Your task to perform on an android device: turn off picture-in-picture Image 0: 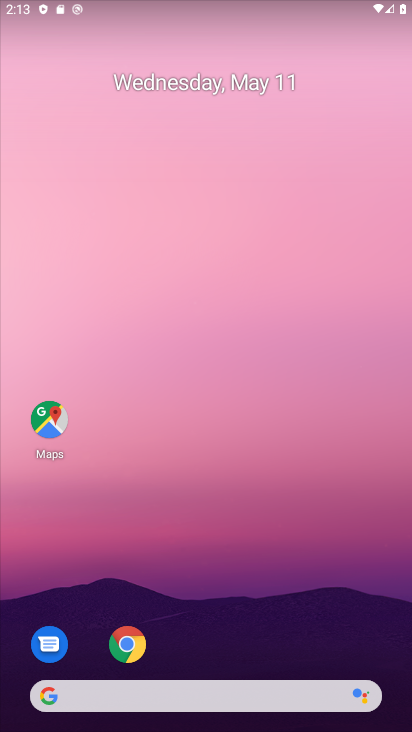
Step 0: click (126, 640)
Your task to perform on an android device: turn off picture-in-picture Image 1: 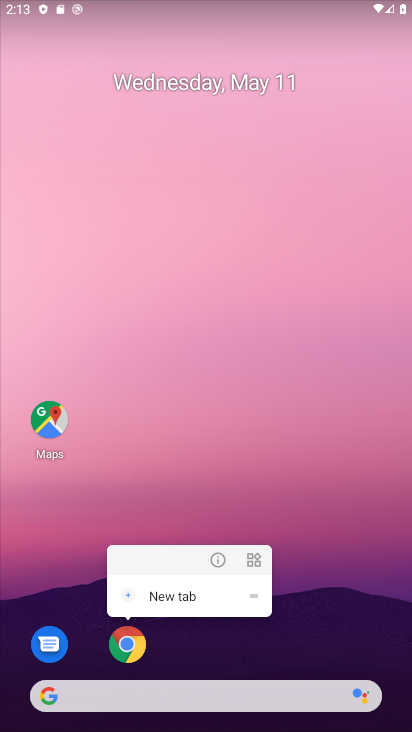
Step 1: click (219, 563)
Your task to perform on an android device: turn off picture-in-picture Image 2: 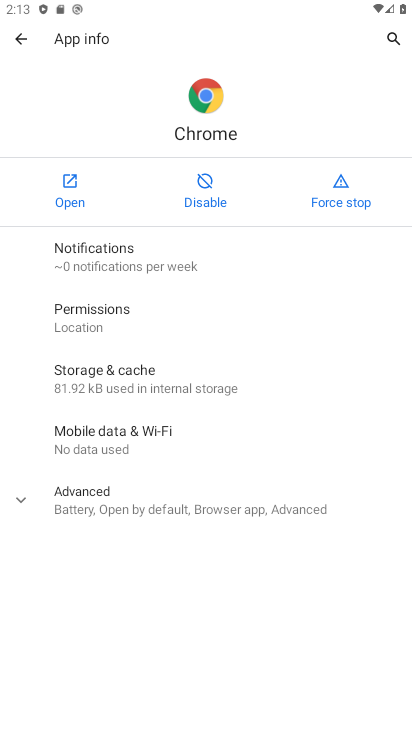
Step 2: click (71, 493)
Your task to perform on an android device: turn off picture-in-picture Image 3: 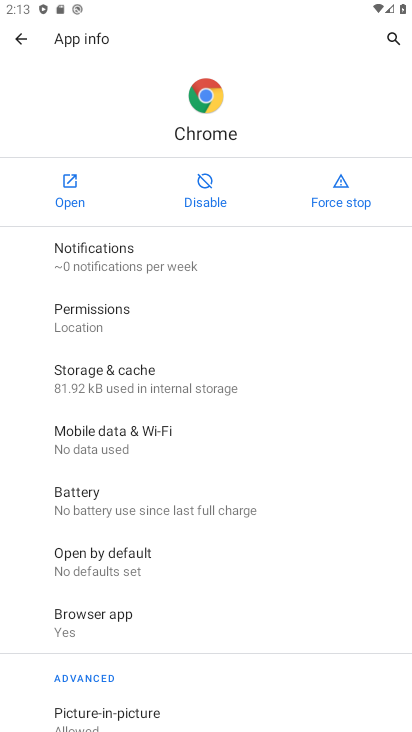
Step 3: click (109, 716)
Your task to perform on an android device: turn off picture-in-picture Image 4: 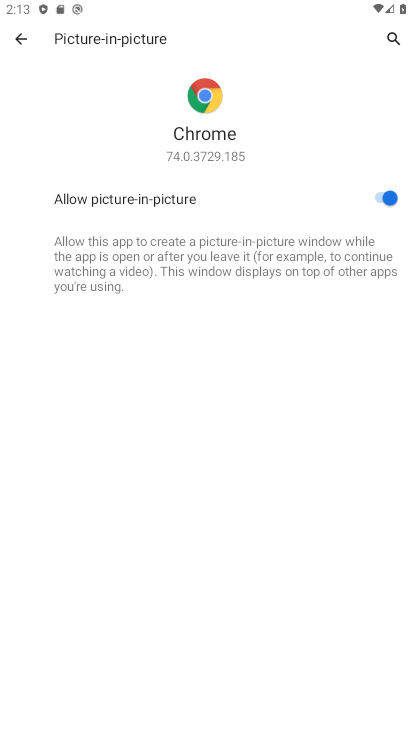
Step 4: click (380, 197)
Your task to perform on an android device: turn off picture-in-picture Image 5: 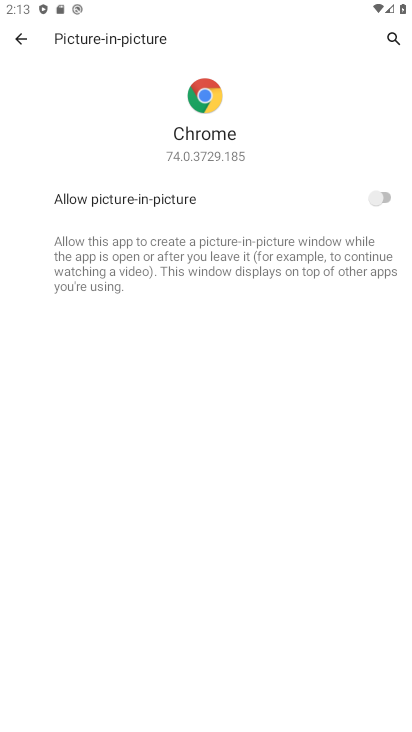
Step 5: task complete